Your task to perform on an android device: install app "File Manager" Image 0: 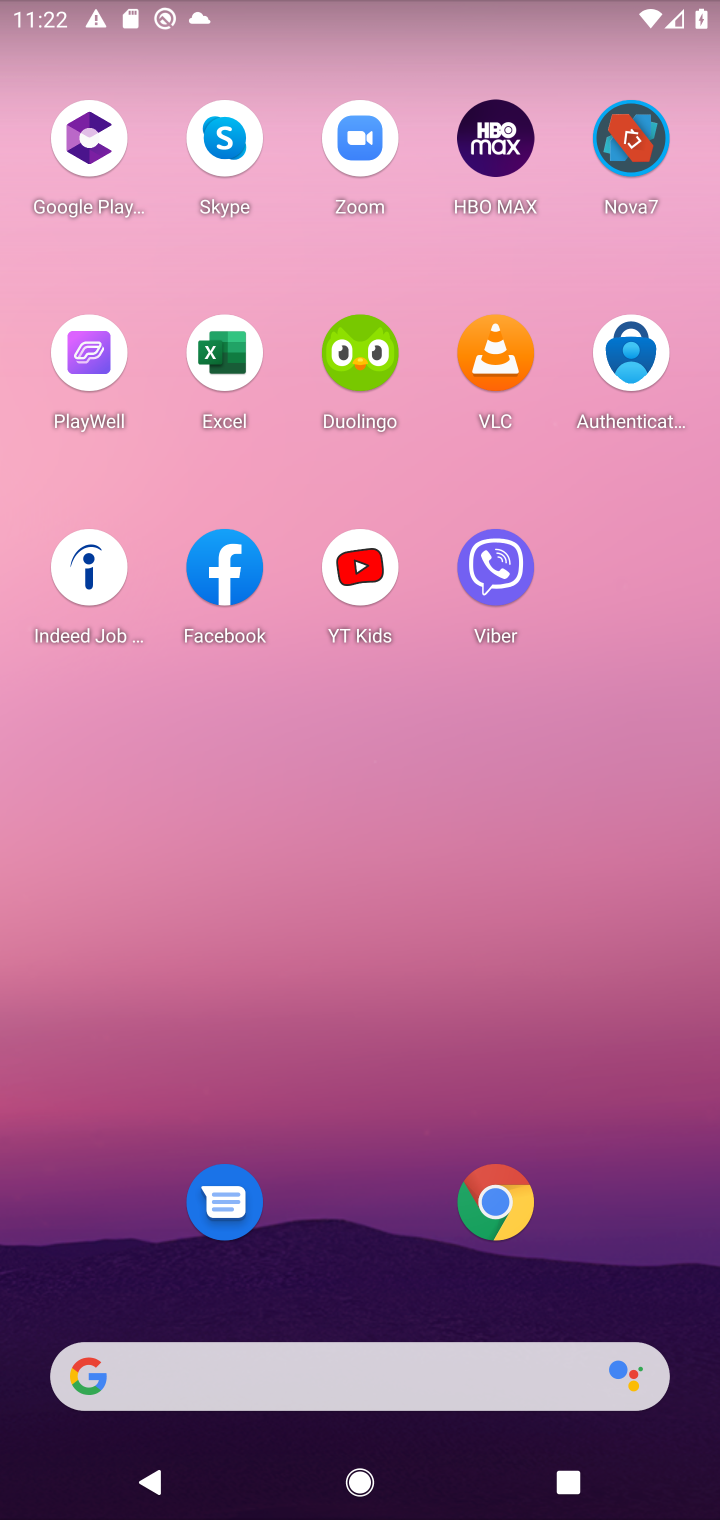
Step 0: click (373, 1360)
Your task to perform on an android device: install app "File Manager" Image 1: 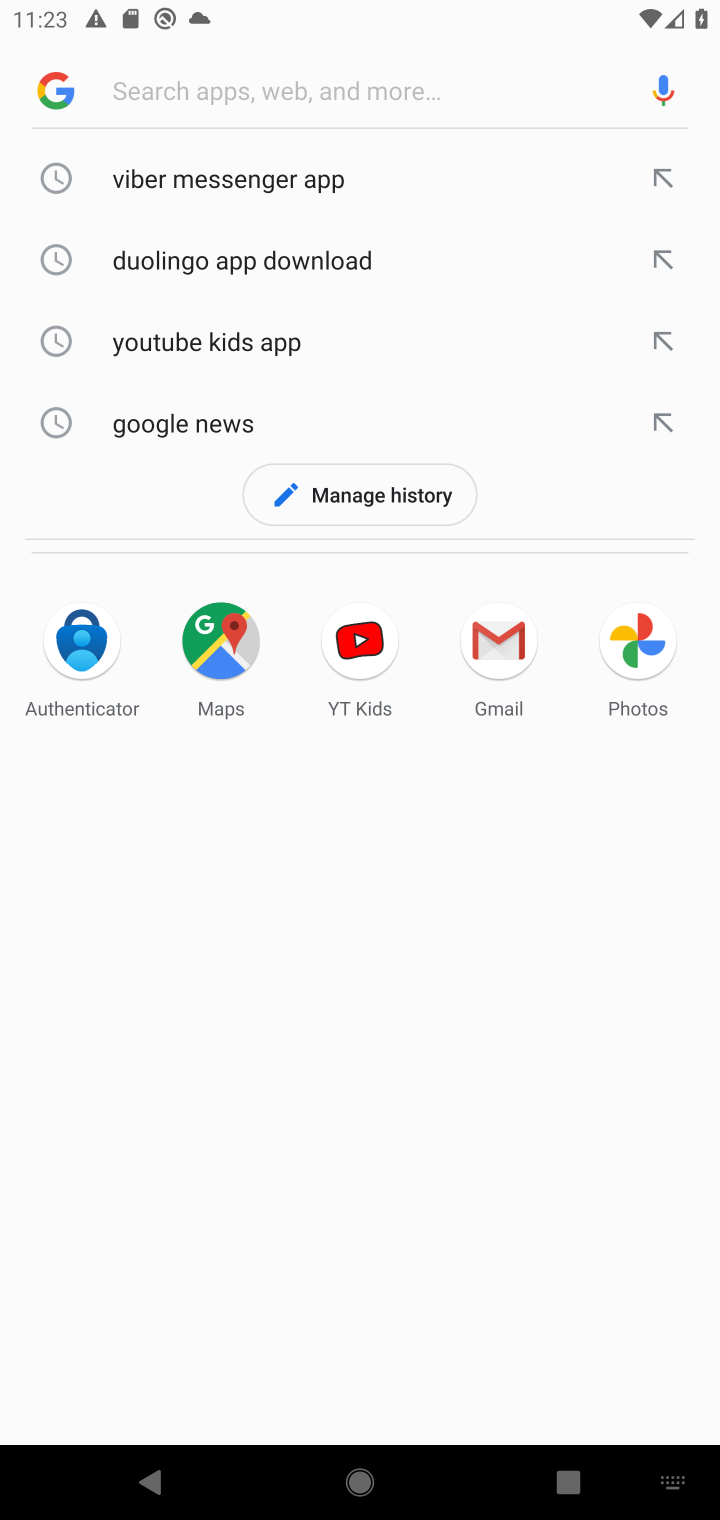
Step 1: type "file manger"
Your task to perform on an android device: install app "File Manager" Image 2: 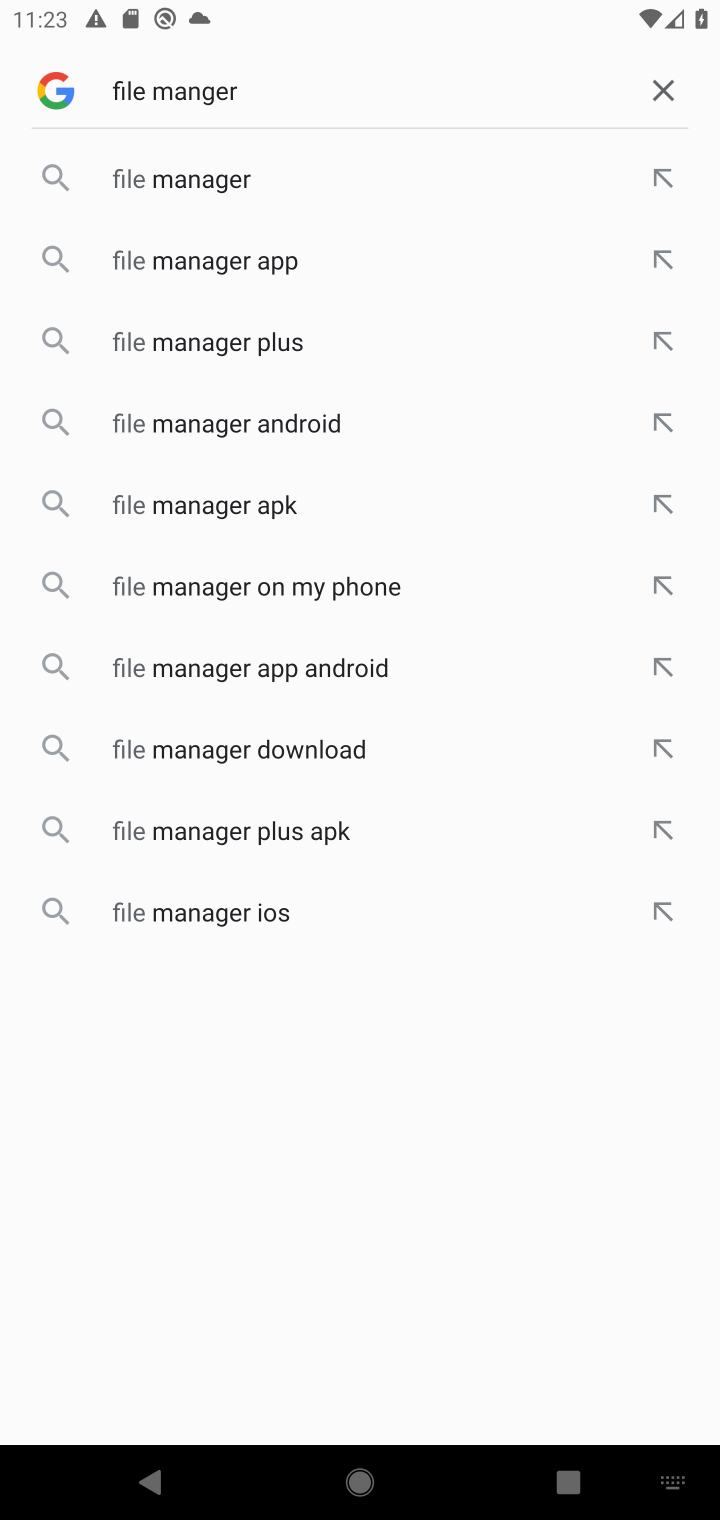
Step 2: click (234, 174)
Your task to perform on an android device: install app "File Manager" Image 3: 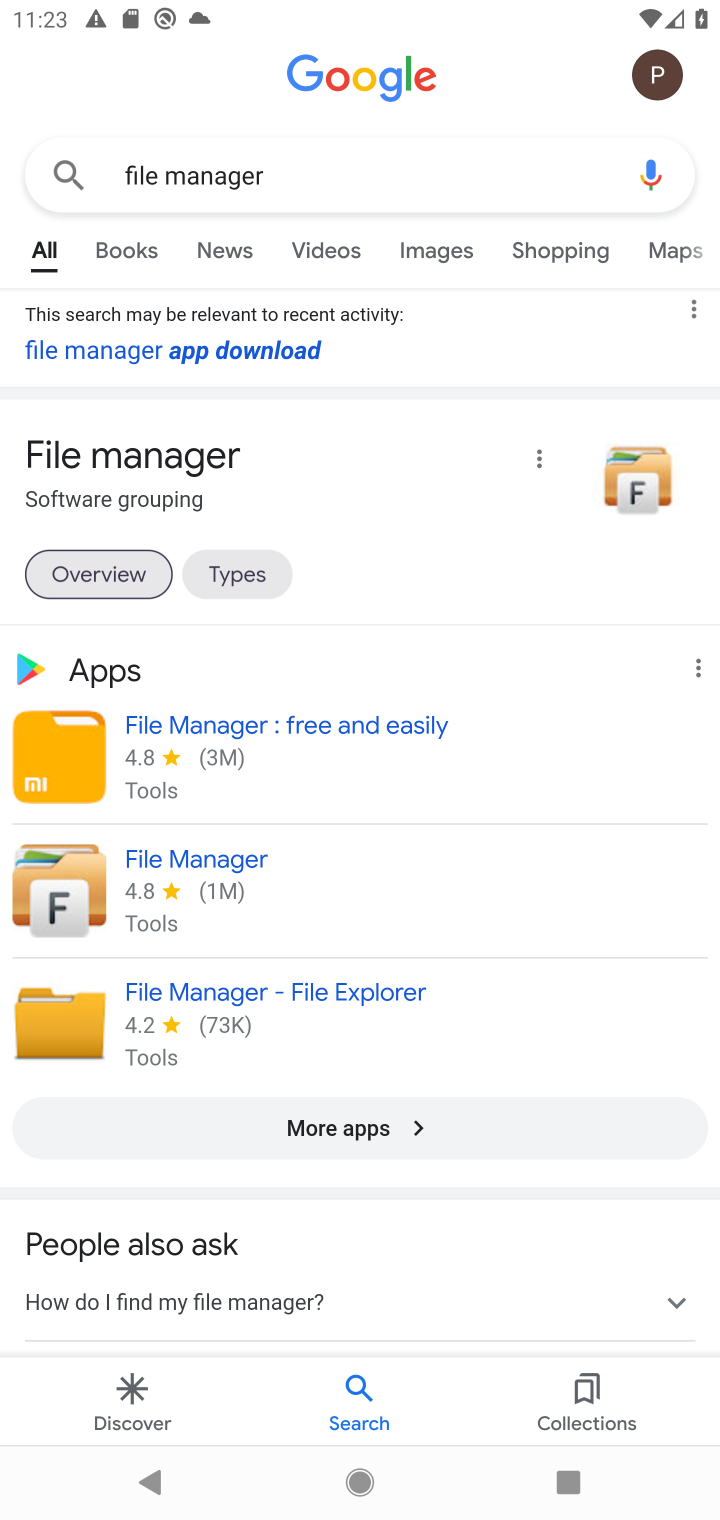
Step 3: click (397, 769)
Your task to perform on an android device: install app "File Manager" Image 4: 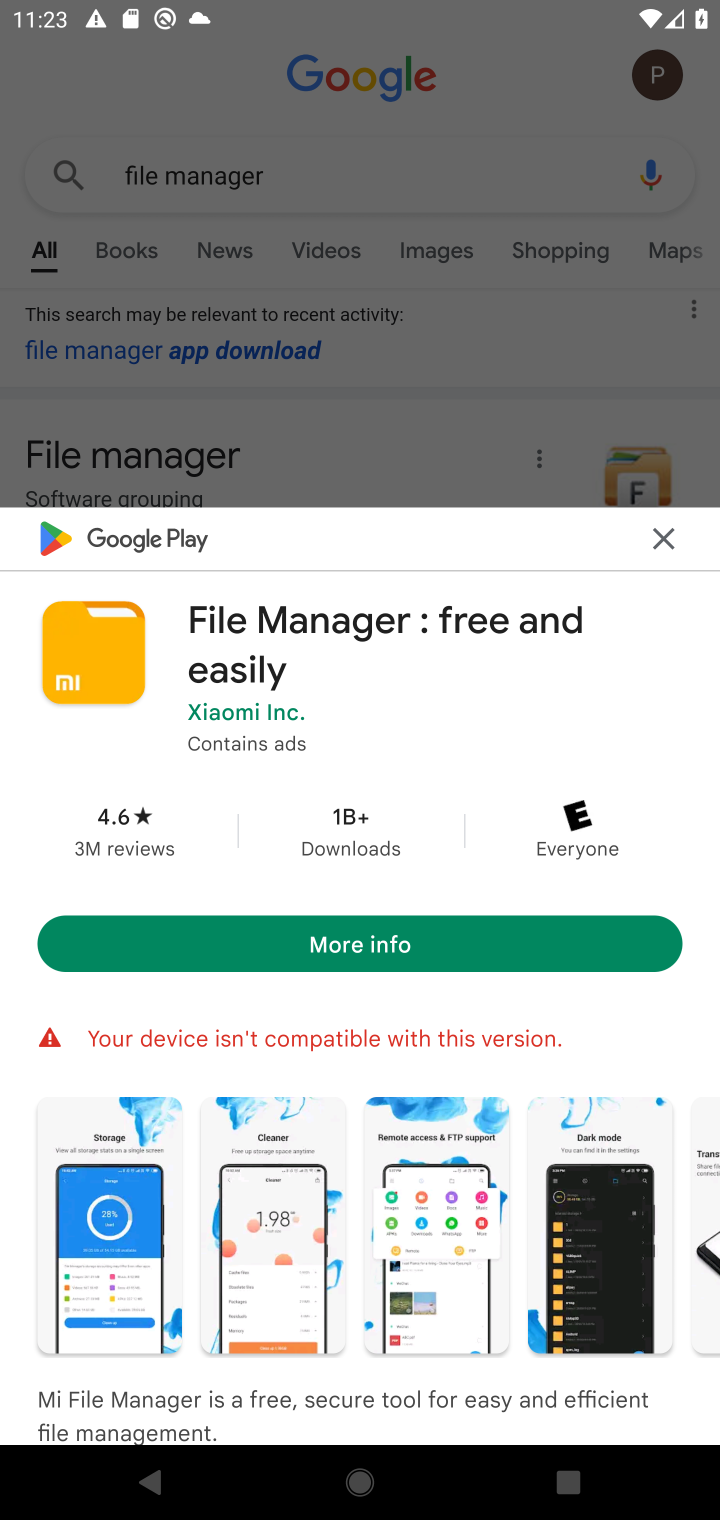
Step 4: click (415, 942)
Your task to perform on an android device: install app "File Manager" Image 5: 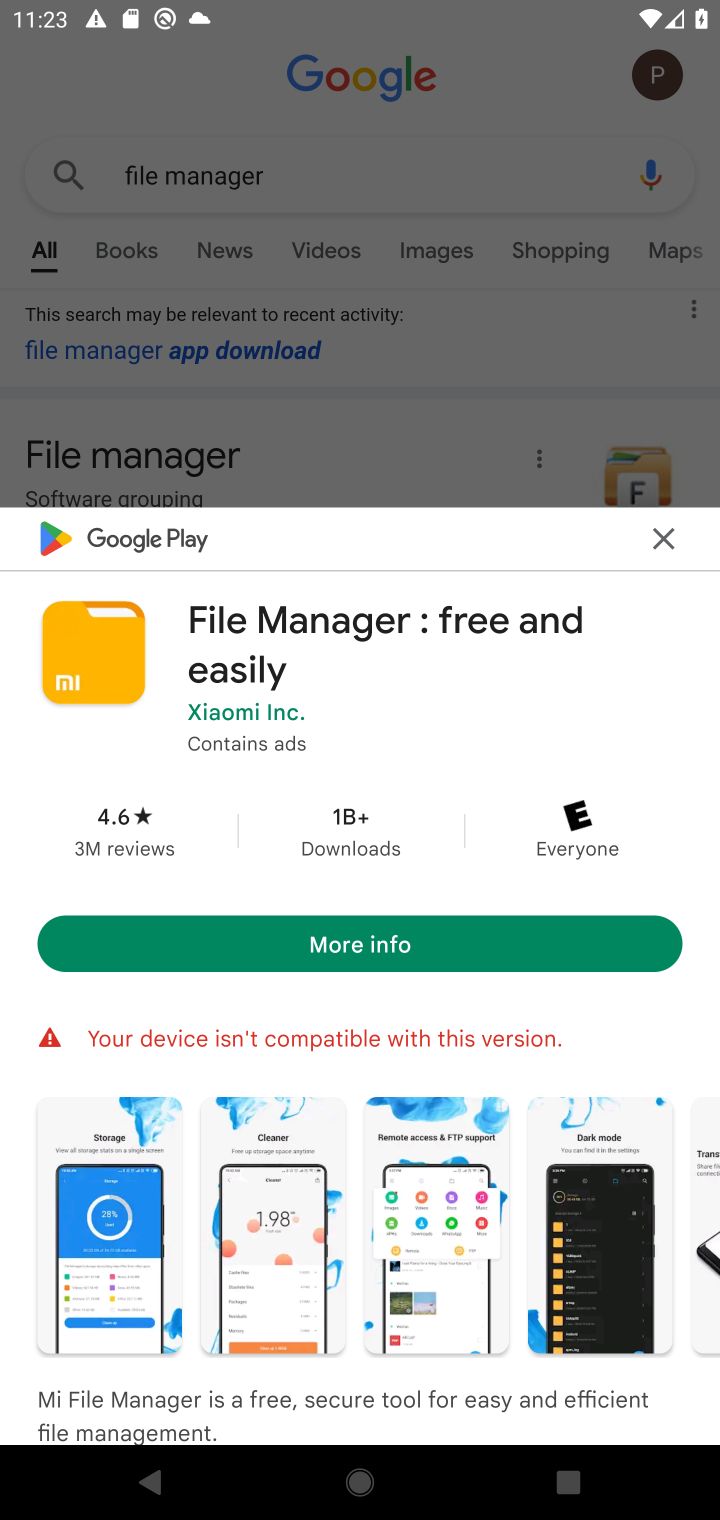
Step 5: task complete